Your task to perform on an android device: open app "Pinterest" (install if not already installed) Image 0: 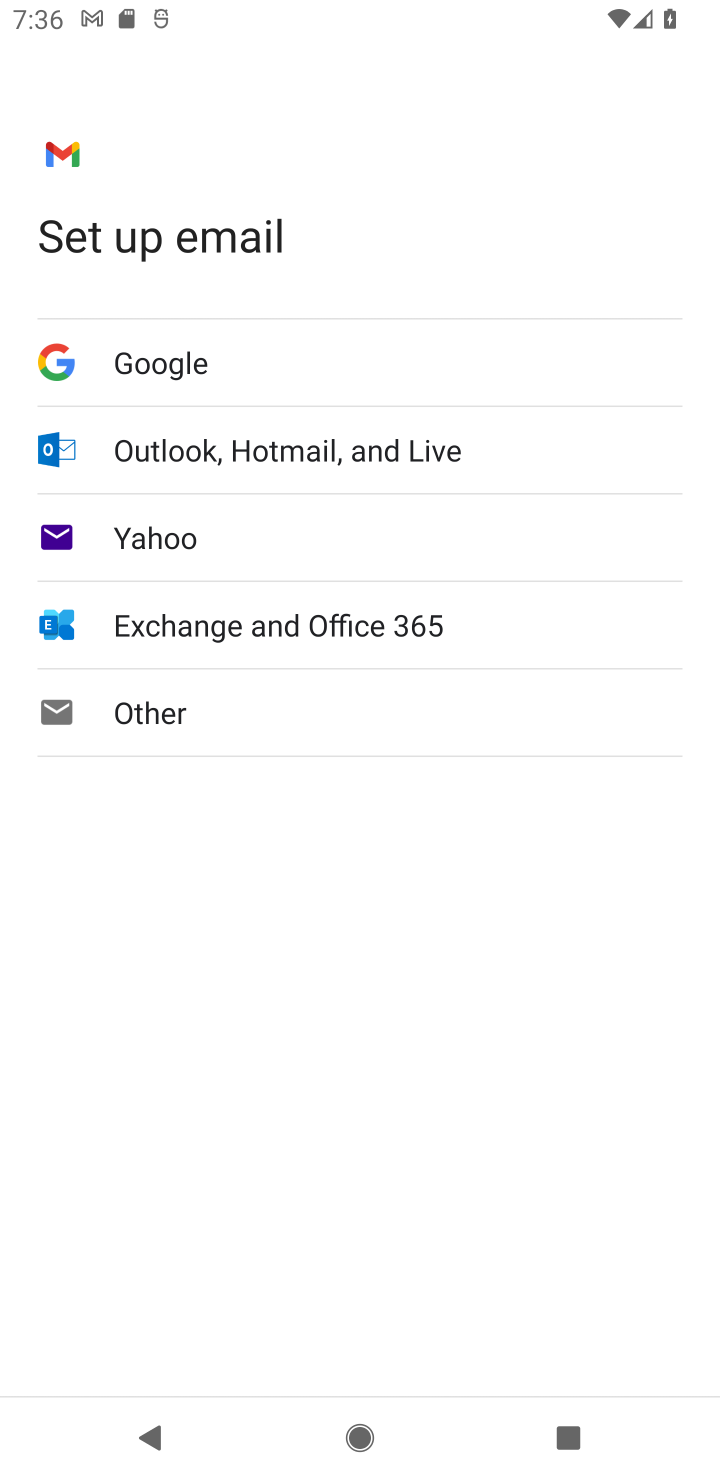
Step 0: press home button
Your task to perform on an android device: open app "Pinterest" (install if not already installed) Image 1: 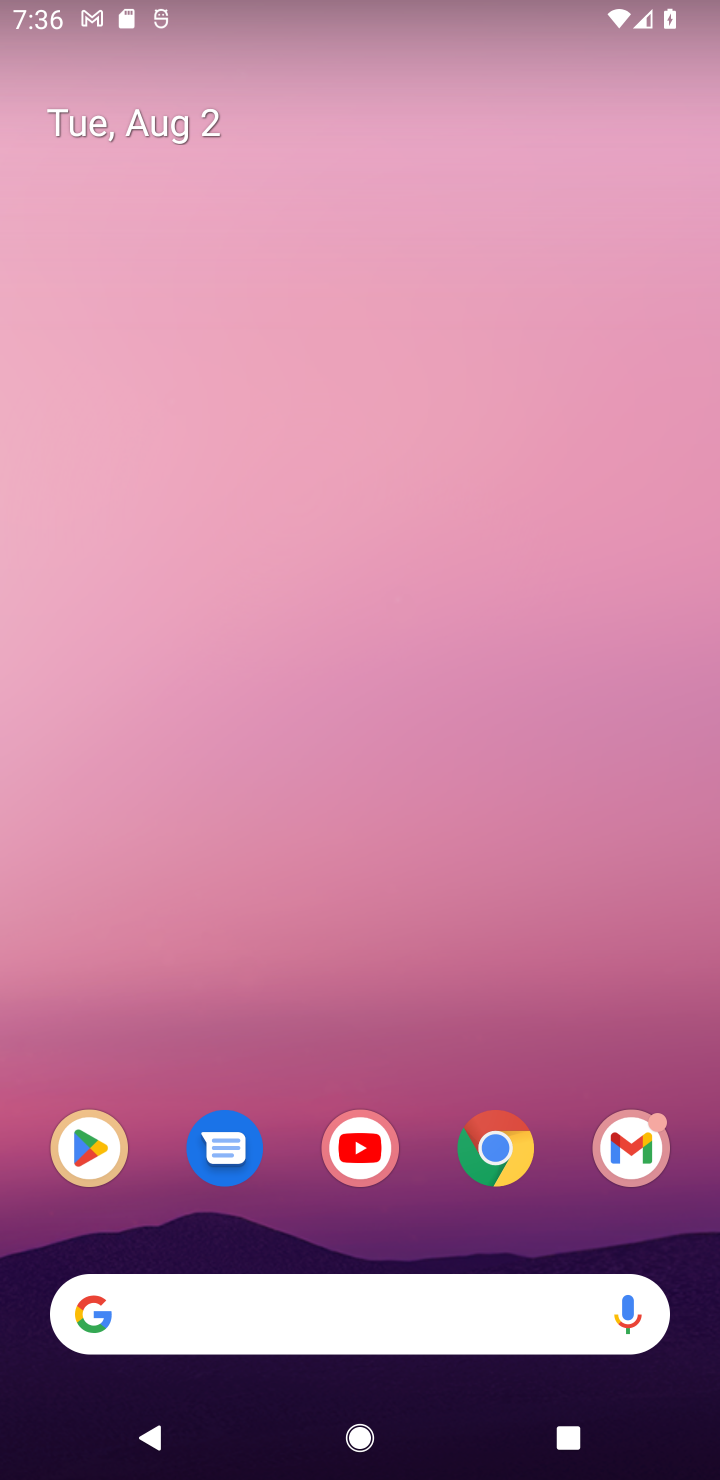
Step 1: drag from (538, 1050) to (169, 105)
Your task to perform on an android device: open app "Pinterest" (install if not already installed) Image 2: 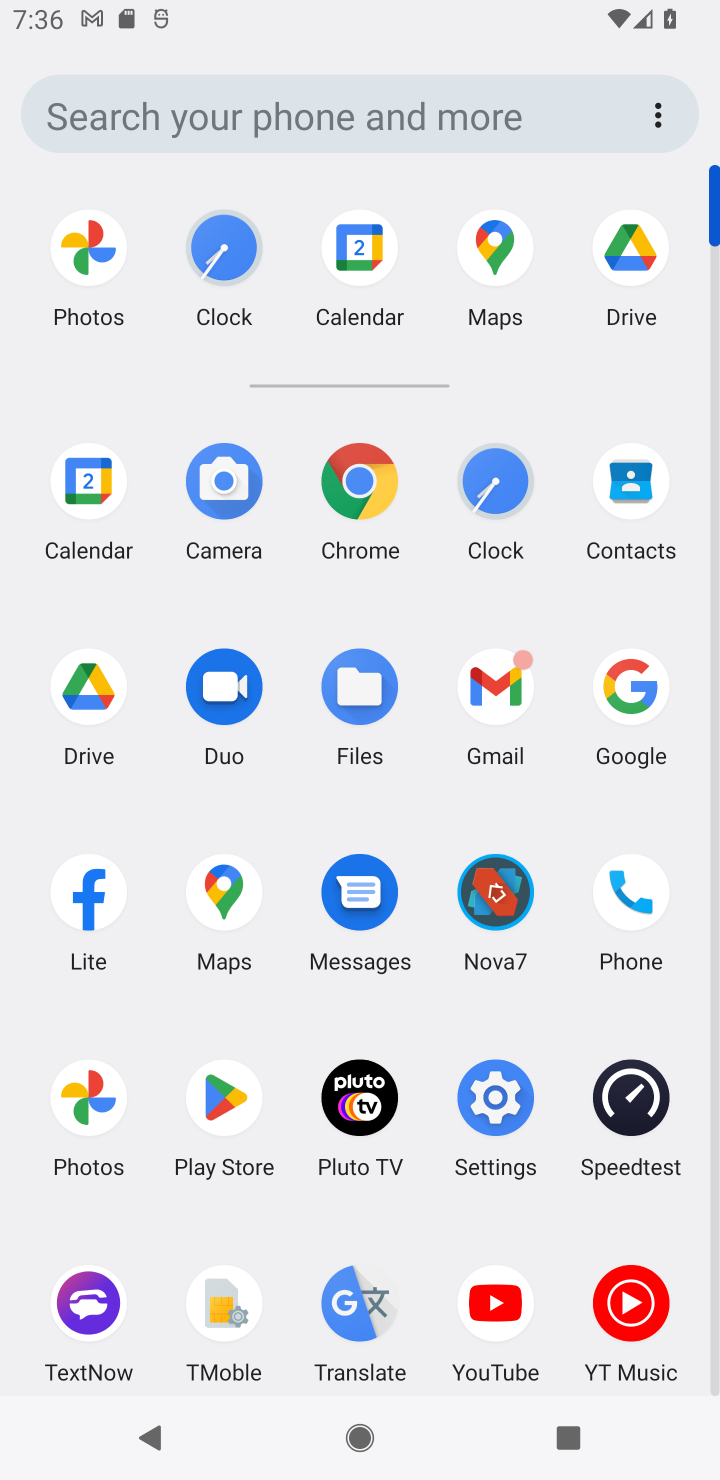
Step 2: click (227, 1090)
Your task to perform on an android device: open app "Pinterest" (install if not already installed) Image 3: 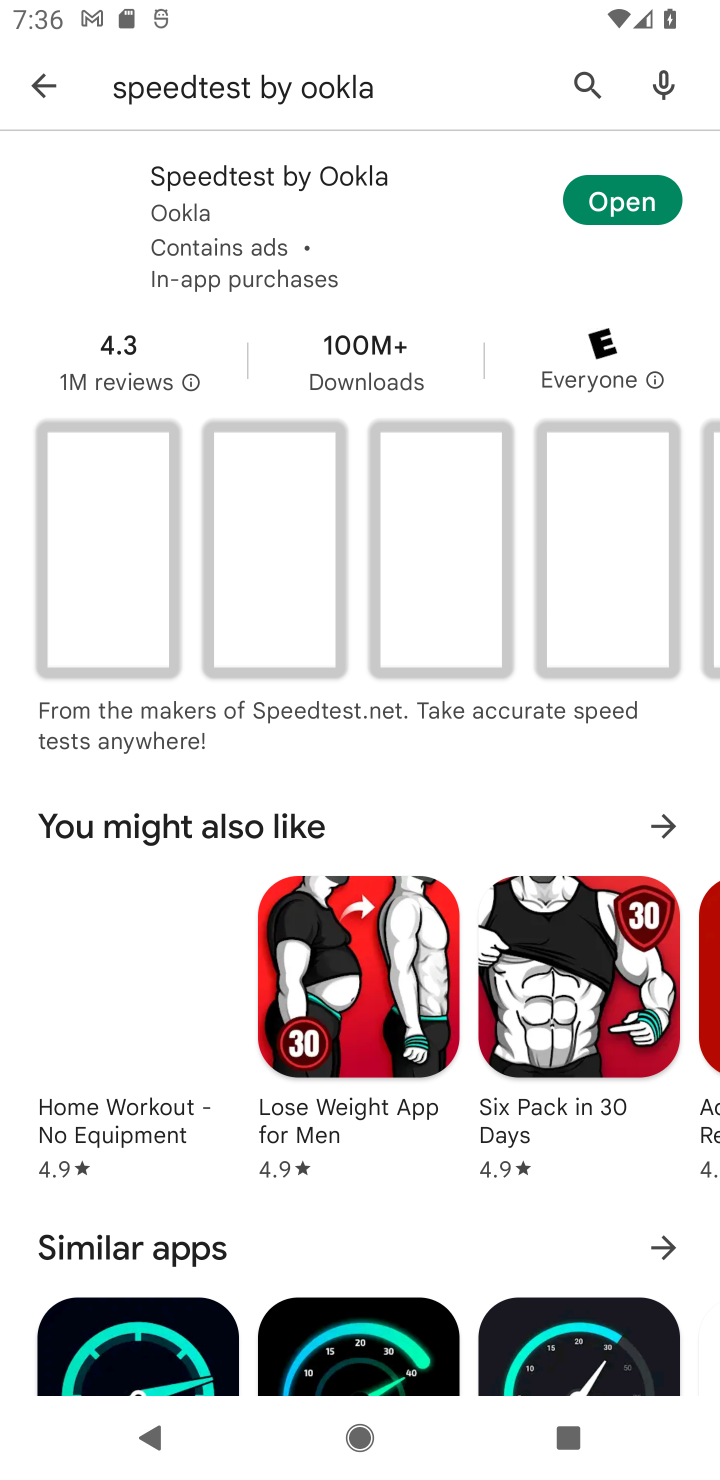
Step 3: press back button
Your task to perform on an android device: open app "Pinterest" (install if not already installed) Image 4: 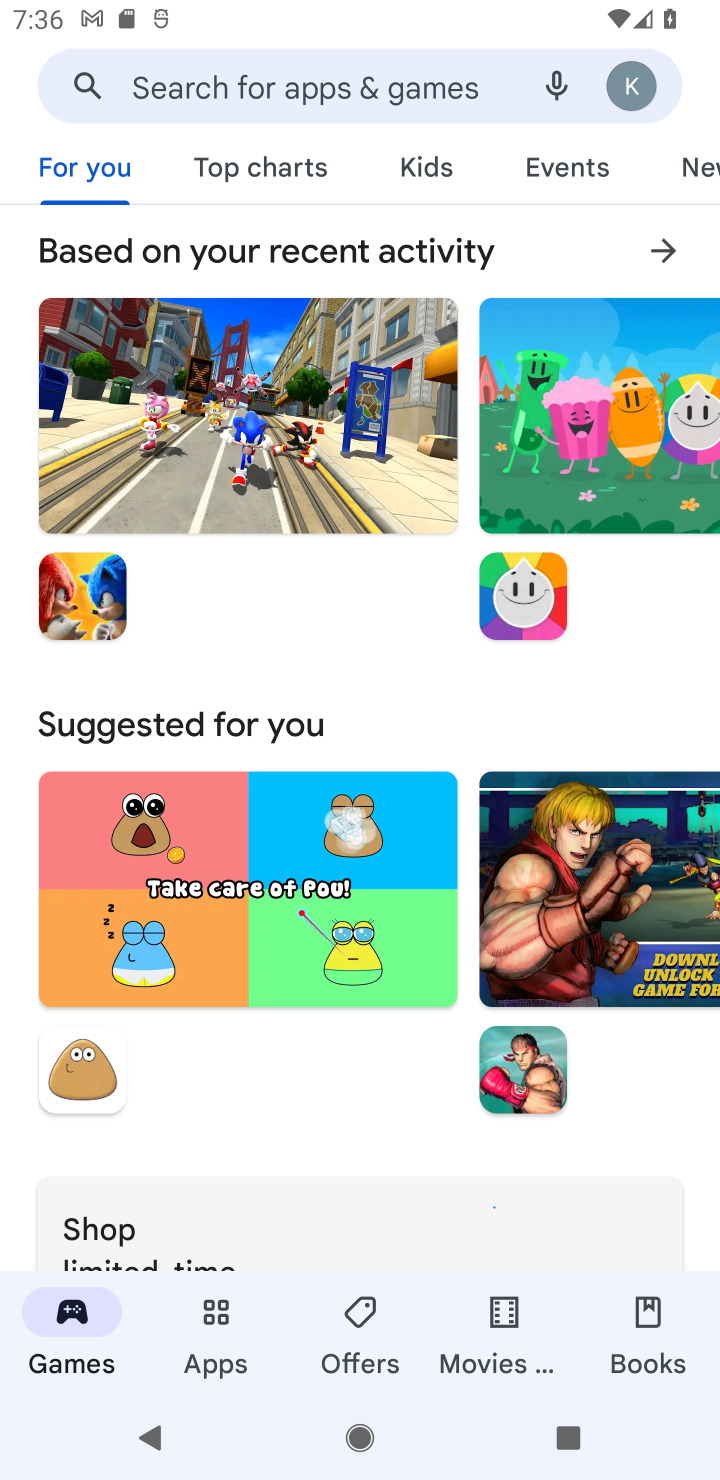
Step 4: click (132, 77)
Your task to perform on an android device: open app "Pinterest" (install if not already installed) Image 5: 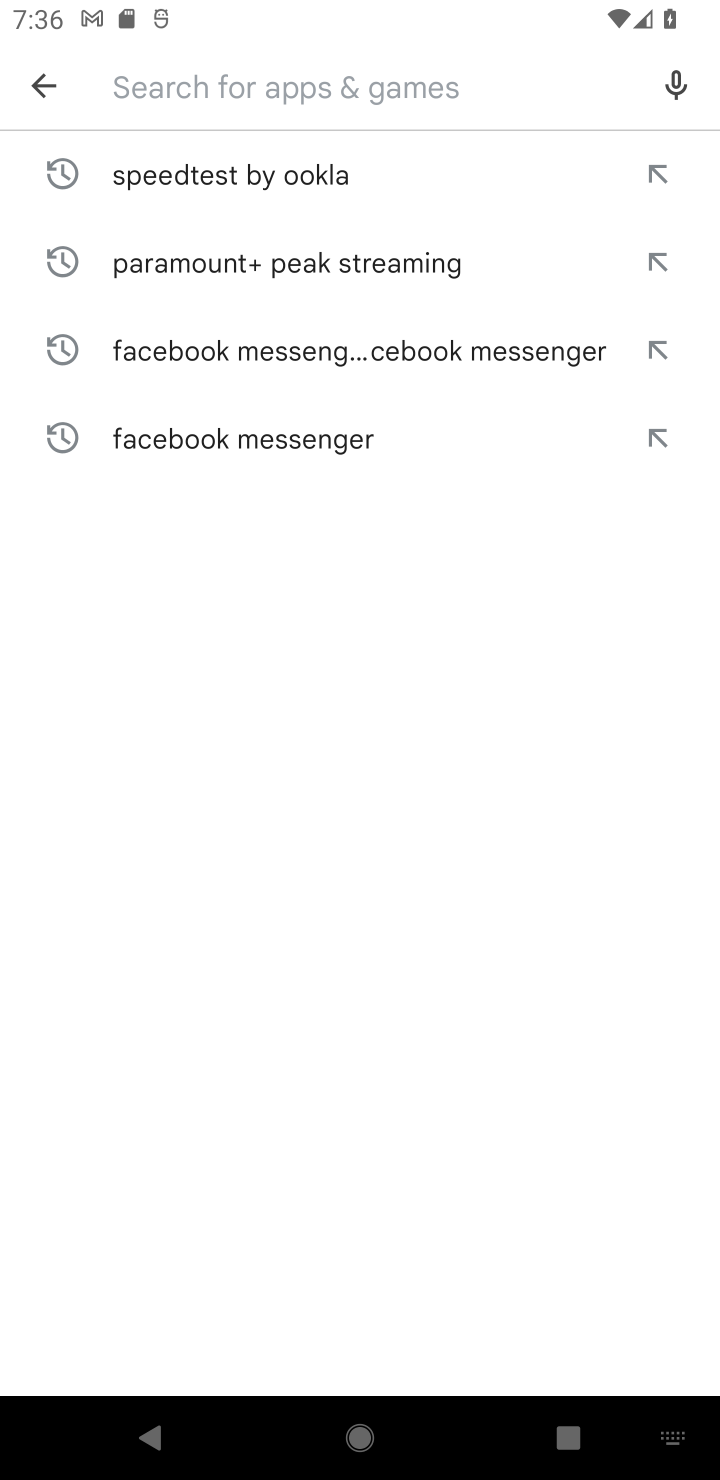
Step 5: type "Pinterest"
Your task to perform on an android device: open app "Pinterest" (install if not already installed) Image 6: 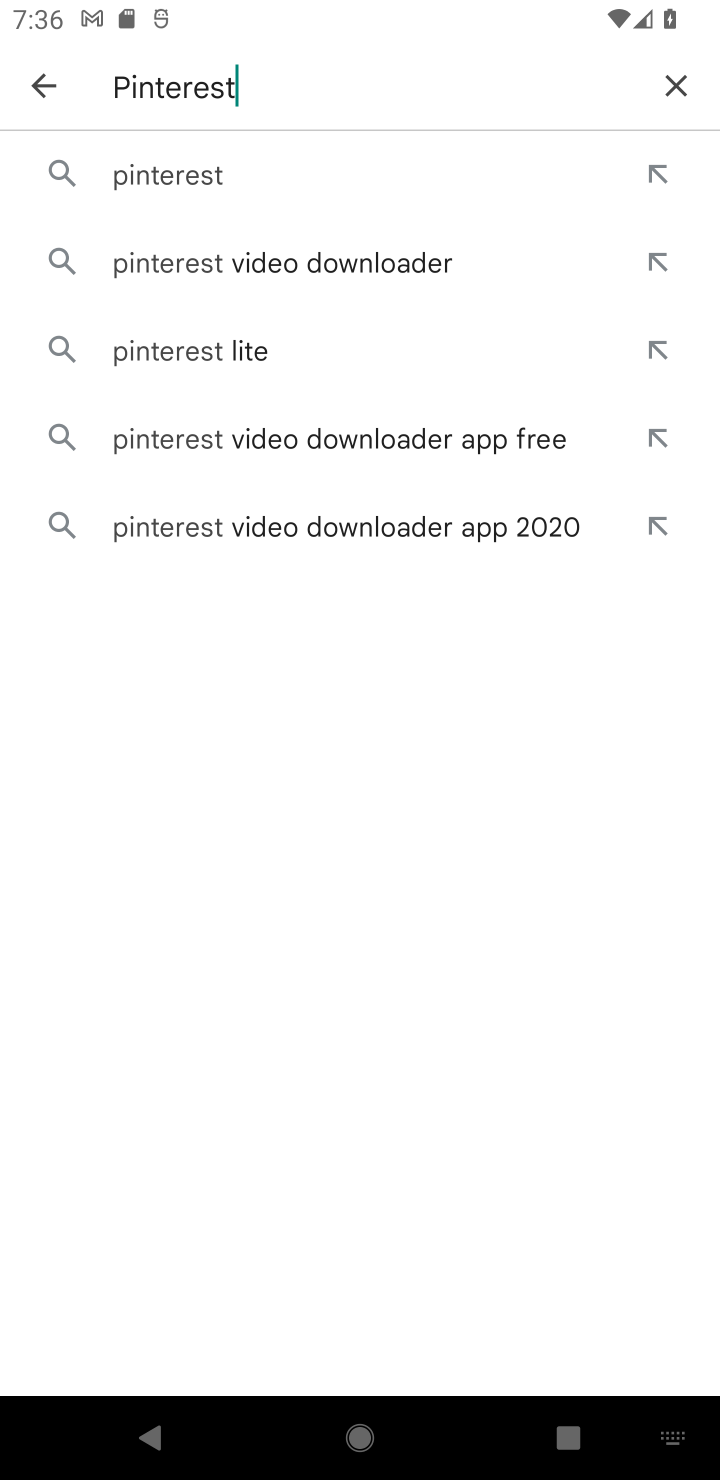
Step 6: click (272, 183)
Your task to perform on an android device: open app "Pinterest" (install if not already installed) Image 7: 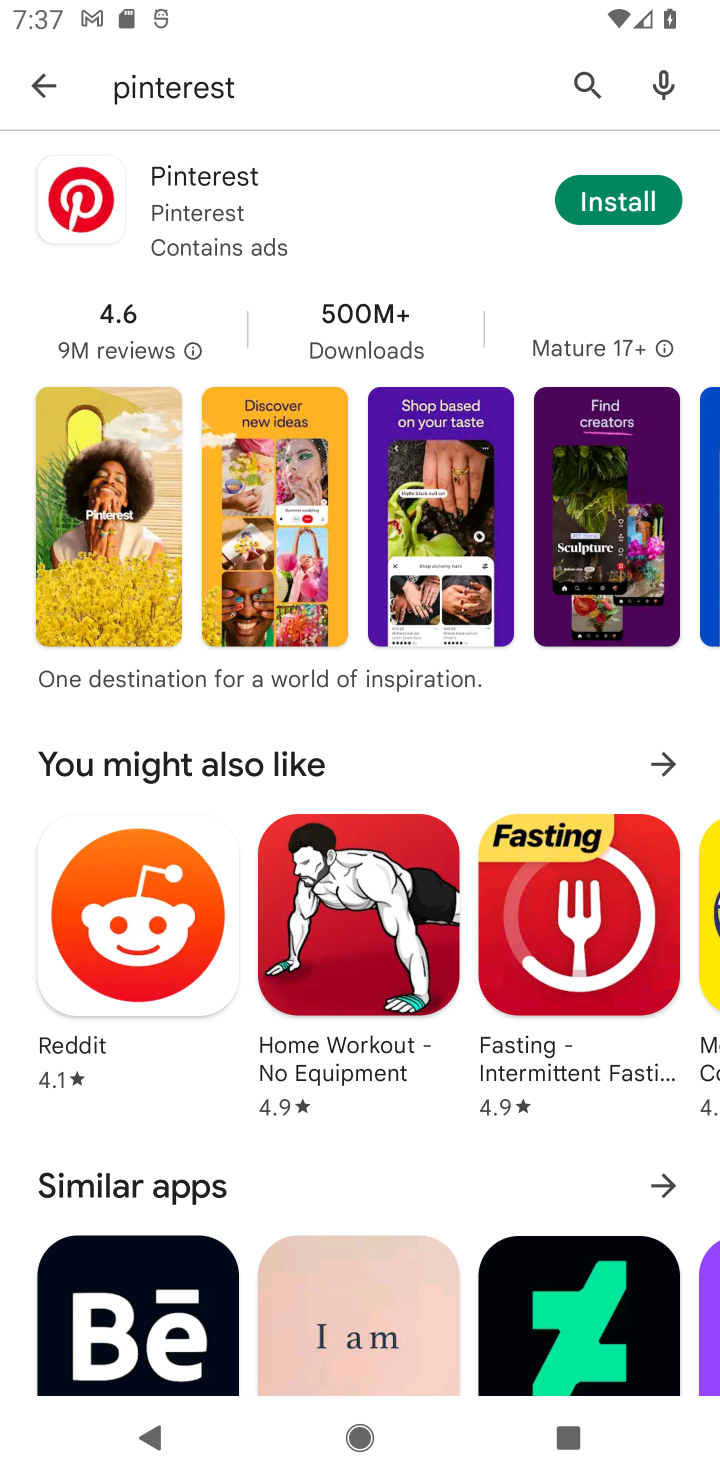
Step 7: task complete